Your task to perform on an android device: add a contact in the contacts app Image 0: 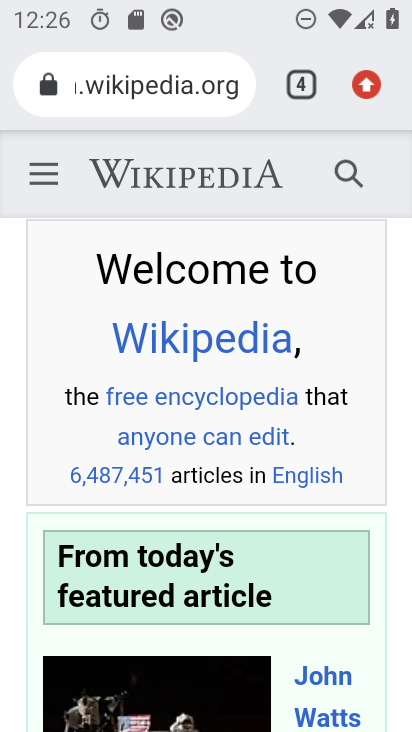
Step 0: press home button
Your task to perform on an android device: add a contact in the contacts app Image 1: 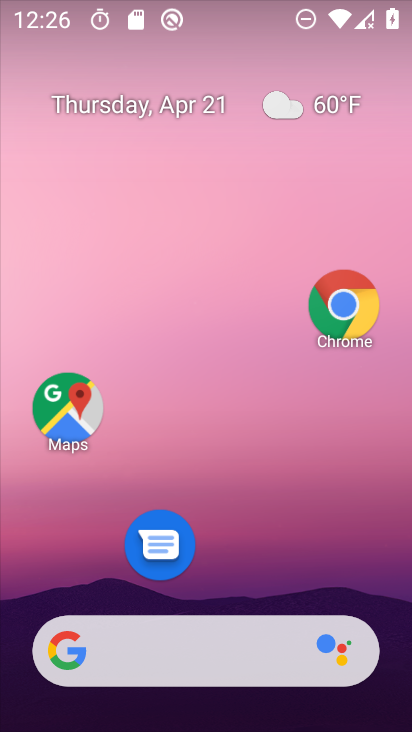
Step 1: drag from (282, 614) to (339, 197)
Your task to perform on an android device: add a contact in the contacts app Image 2: 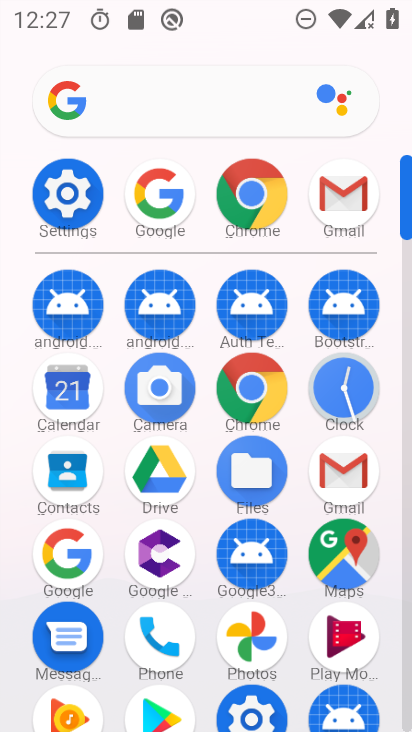
Step 2: click (69, 483)
Your task to perform on an android device: add a contact in the contacts app Image 3: 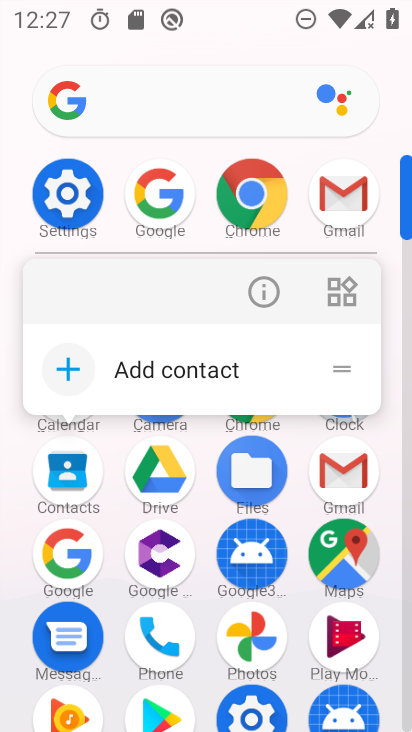
Step 3: click (69, 483)
Your task to perform on an android device: add a contact in the contacts app Image 4: 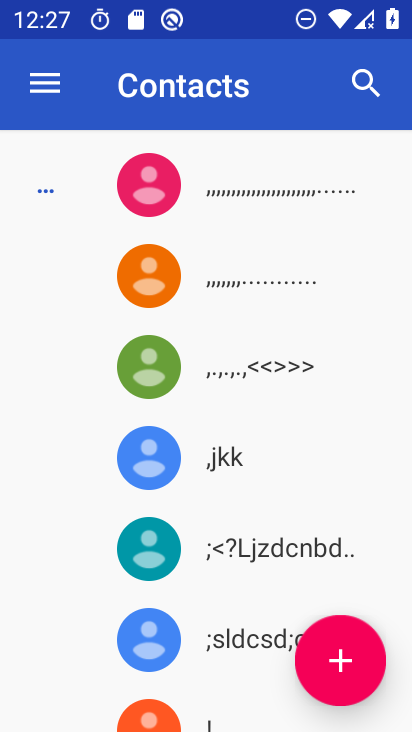
Step 4: click (337, 685)
Your task to perform on an android device: add a contact in the contacts app Image 5: 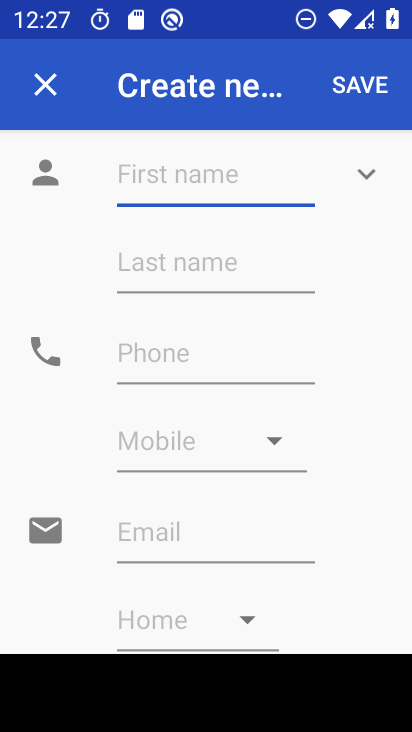
Step 5: type "gfjgfhftth"
Your task to perform on an android device: add a contact in the contacts app Image 6: 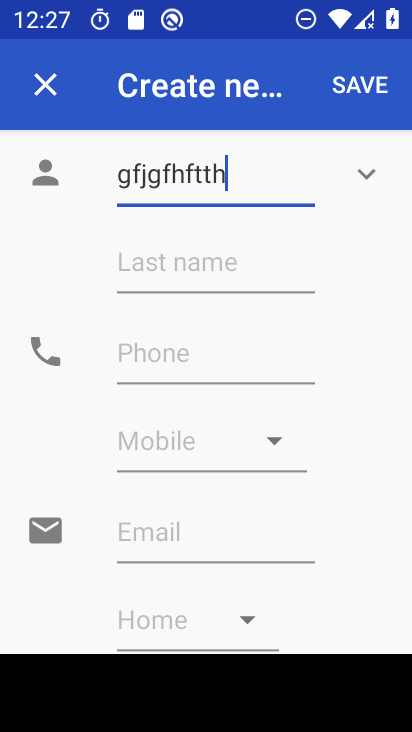
Step 6: type ""
Your task to perform on an android device: add a contact in the contacts app Image 7: 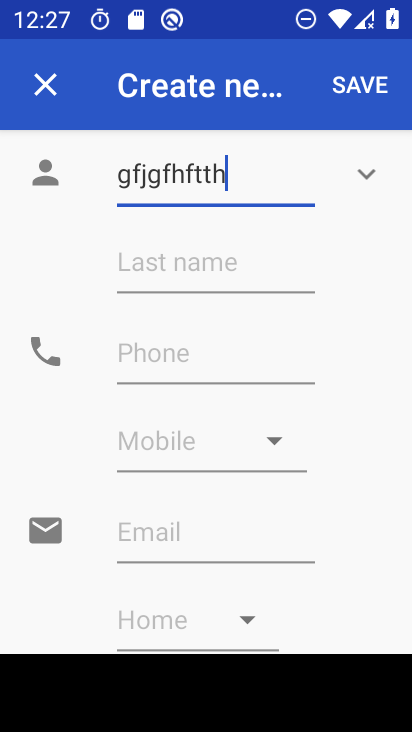
Step 7: click (169, 374)
Your task to perform on an android device: add a contact in the contacts app Image 8: 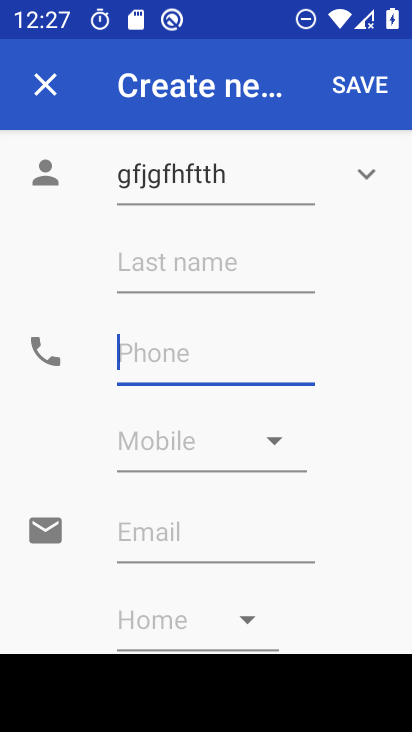
Step 8: type "453425434233"
Your task to perform on an android device: add a contact in the contacts app Image 9: 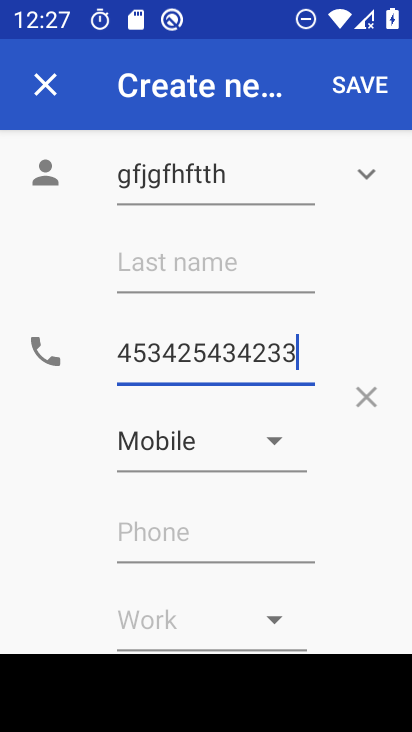
Step 9: type ""
Your task to perform on an android device: add a contact in the contacts app Image 10: 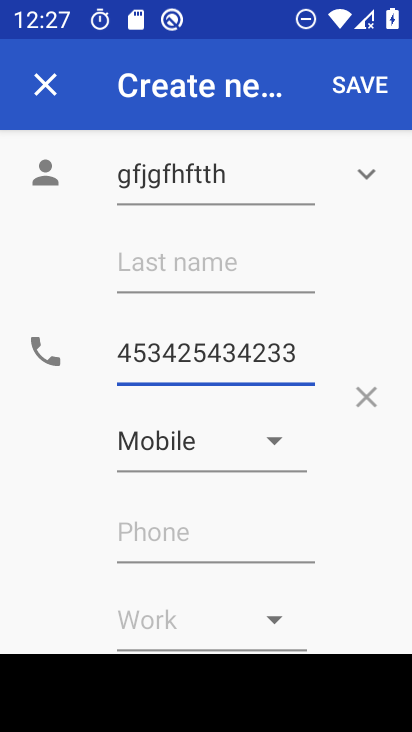
Step 10: click (366, 90)
Your task to perform on an android device: add a contact in the contacts app Image 11: 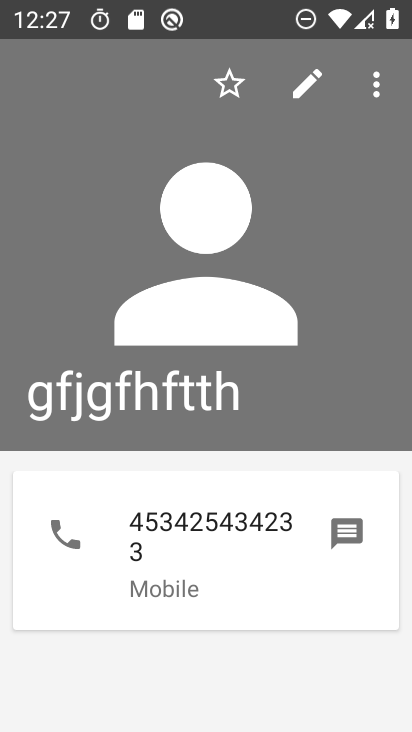
Step 11: task complete